Your task to perform on an android device: toggle sleep mode Image 0: 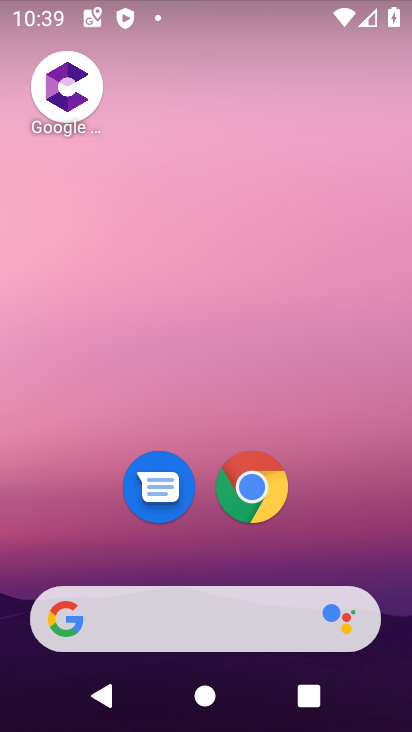
Step 0: drag from (219, 406) to (275, 14)
Your task to perform on an android device: toggle sleep mode Image 1: 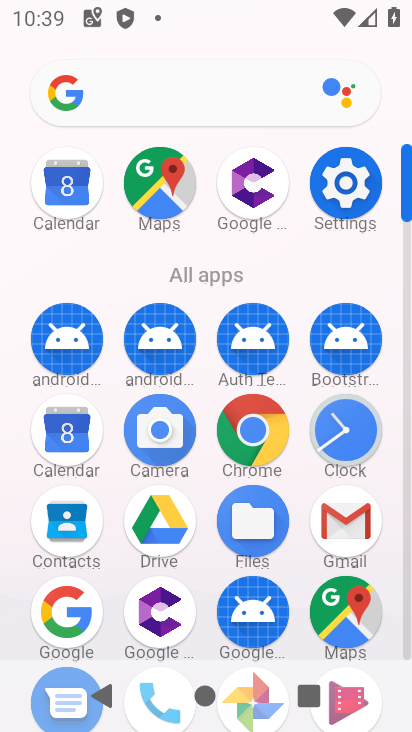
Step 1: click (341, 196)
Your task to perform on an android device: toggle sleep mode Image 2: 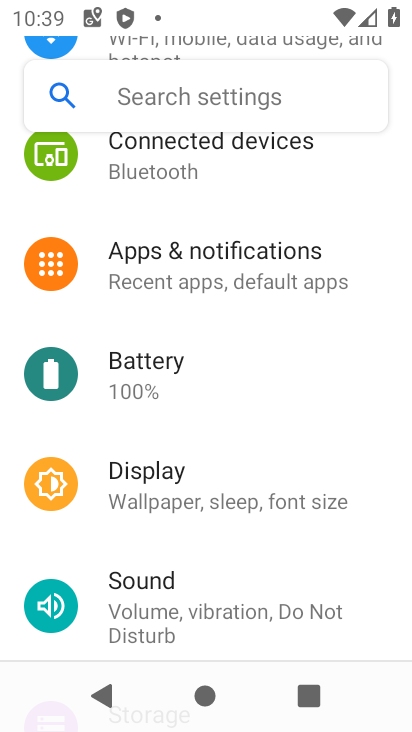
Step 2: click (178, 95)
Your task to perform on an android device: toggle sleep mode Image 3: 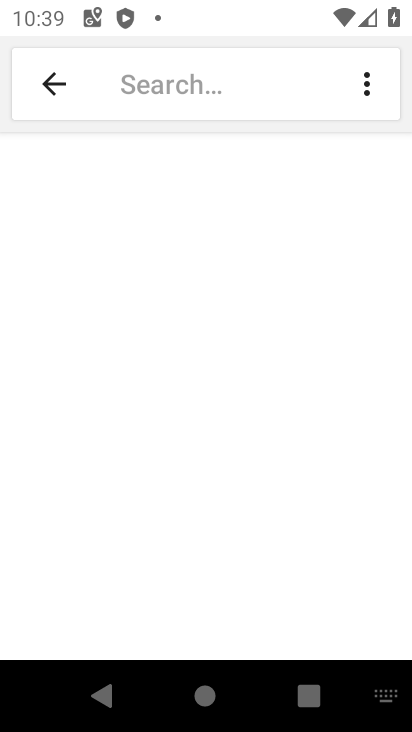
Step 3: type "sleep mode"
Your task to perform on an android device: toggle sleep mode Image 4: 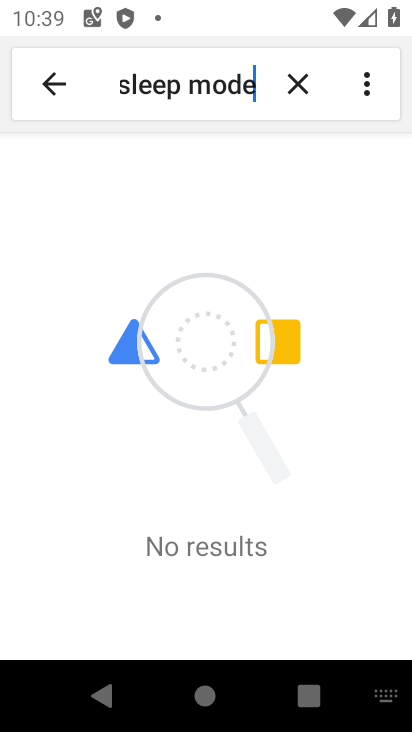
Step 4: task complete